Your task to perform on an android device: Open privacy settings Image 0: 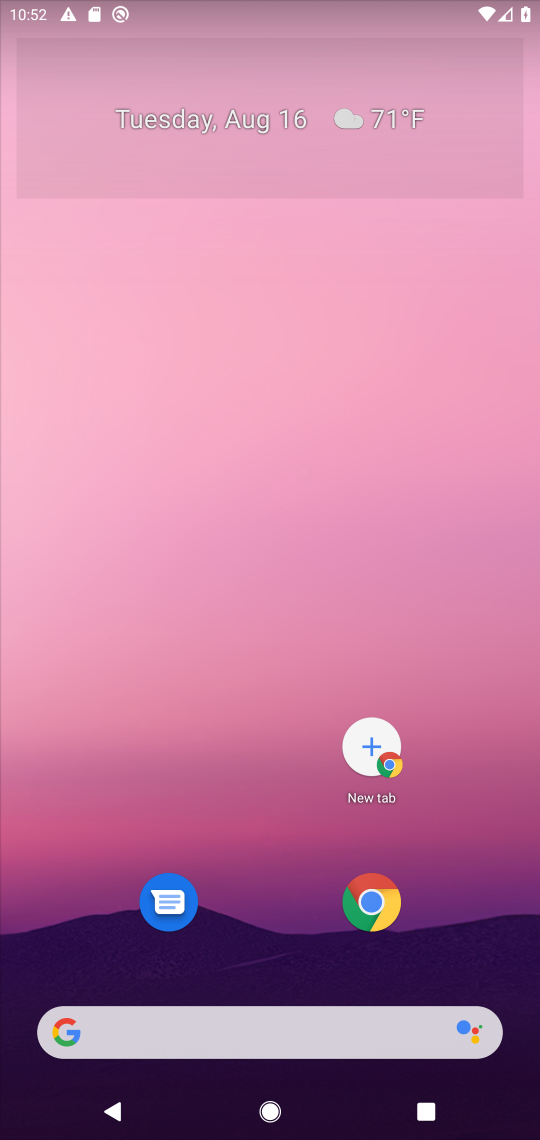
Step 0: drag from (310, 814) to (340, 132)
Your task to perform on an android device: Open privacy settings Image 1: 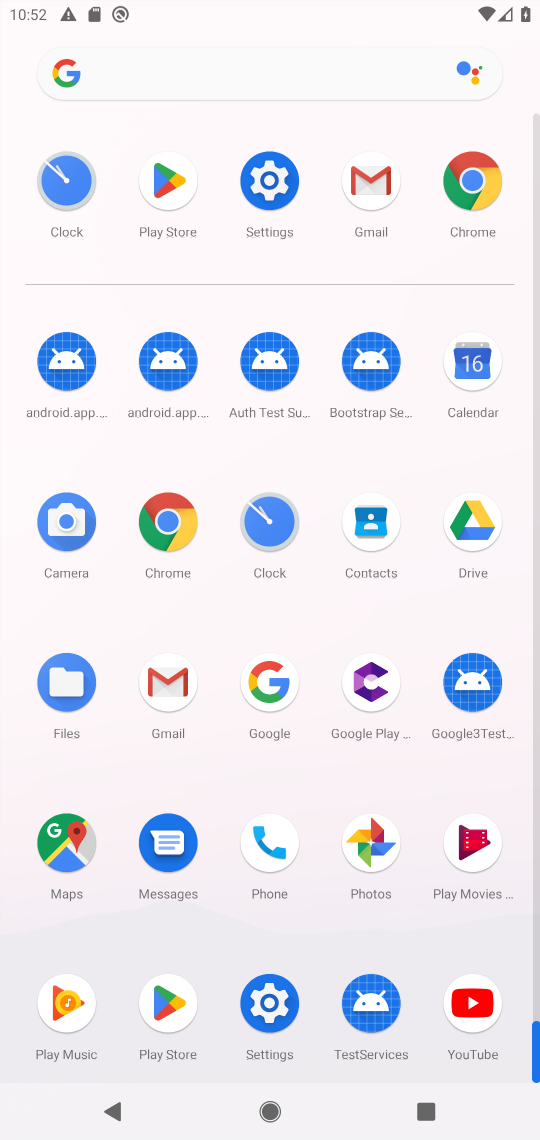
Step 1: click (280, 286)
Your task to perform on an android device: Open privacy settings Image 2: 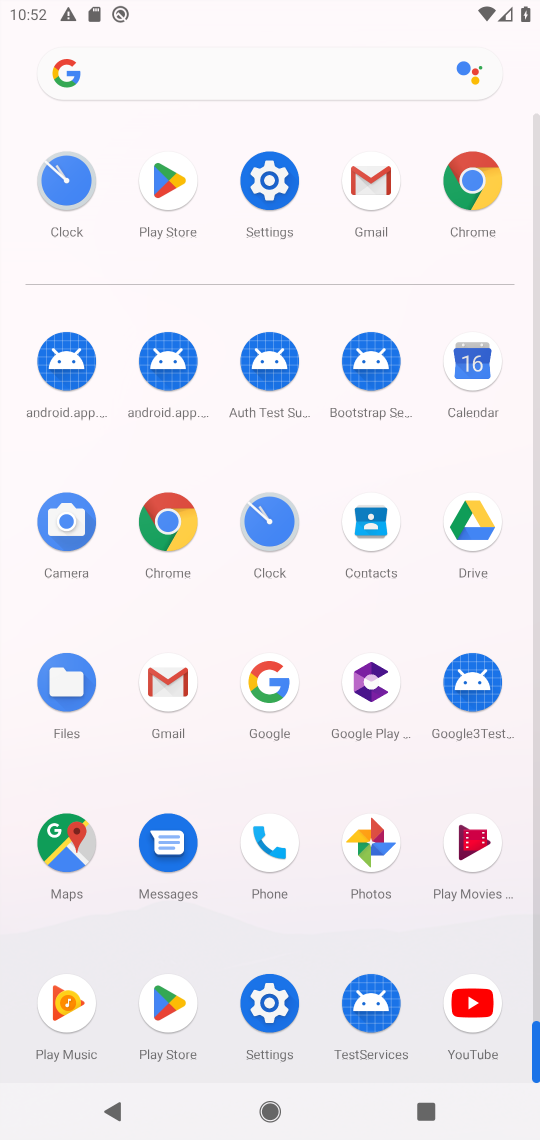
Step 2: click (276, 209)
Your task to perform on an android device: Open privacy settings Image 3: 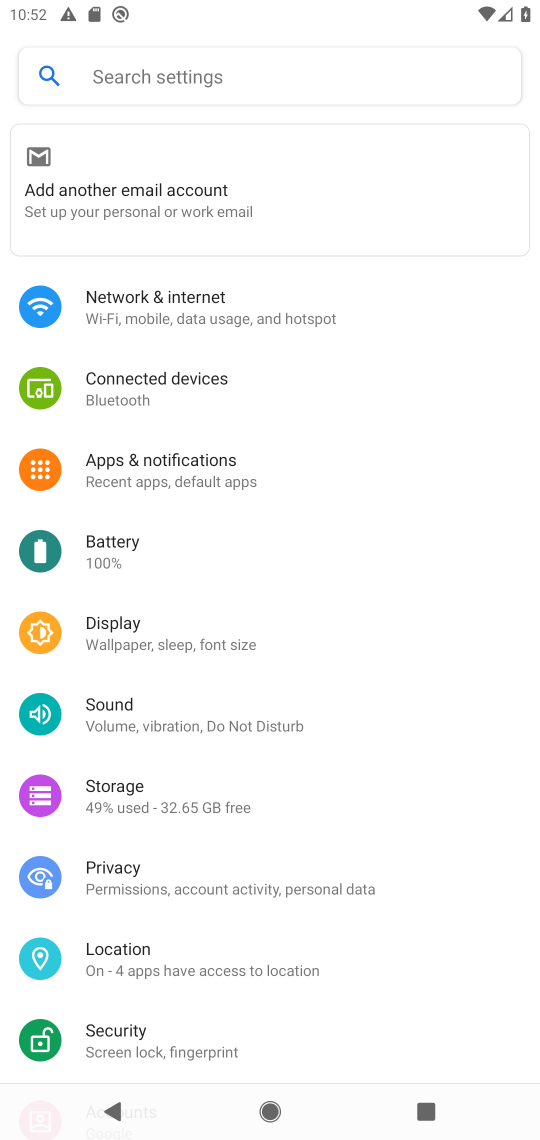
Step 3: drag from (132, 1023) to (208, 287)
Your task to perform on an android device: Open privacy settings Image 4: 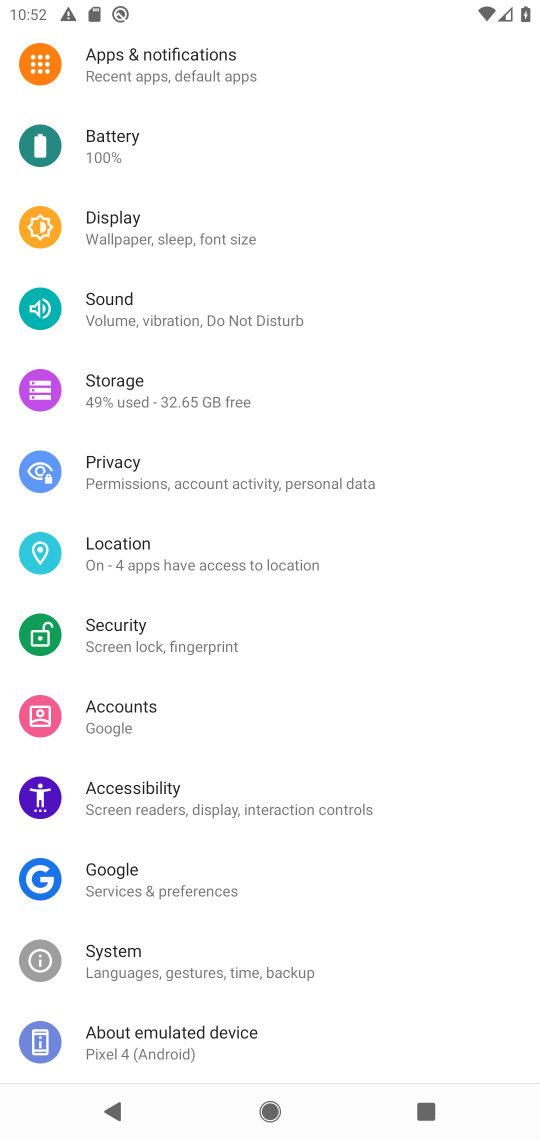
Step 4: click (112, 489)
Your task to perform on an android device: Open privacy settings Image 5: 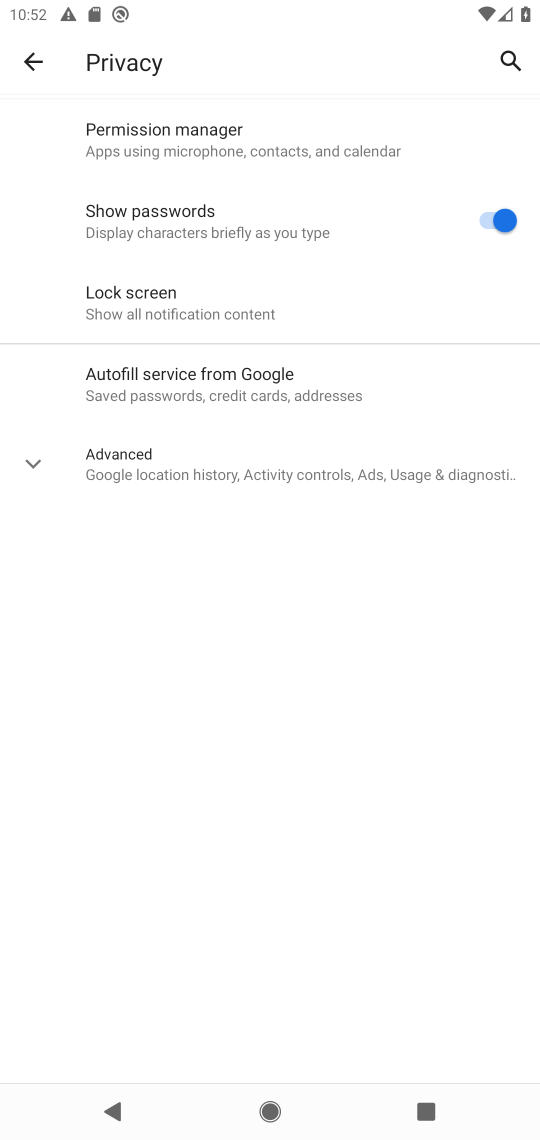
Step 5: click (116, 454)
Your task to perform on an android device: Open privacy settings Image 6: 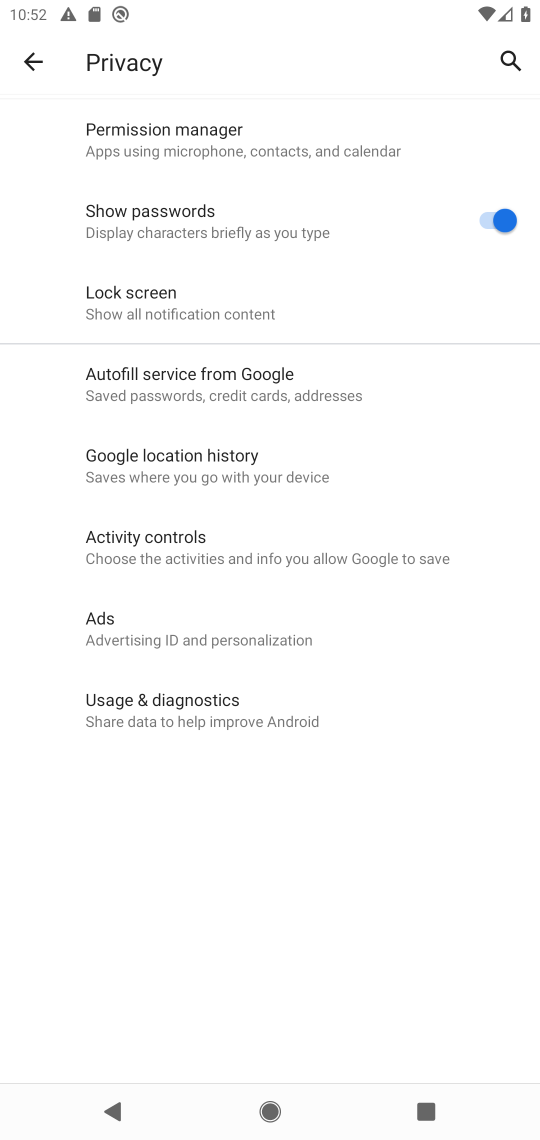
Step 6: task complete